Your task to perform on an android device: Clear the shopping cart on bestbuy. Add bose quietcomfort 35 to the cart on bestbuy, then select checkout. Image 0: 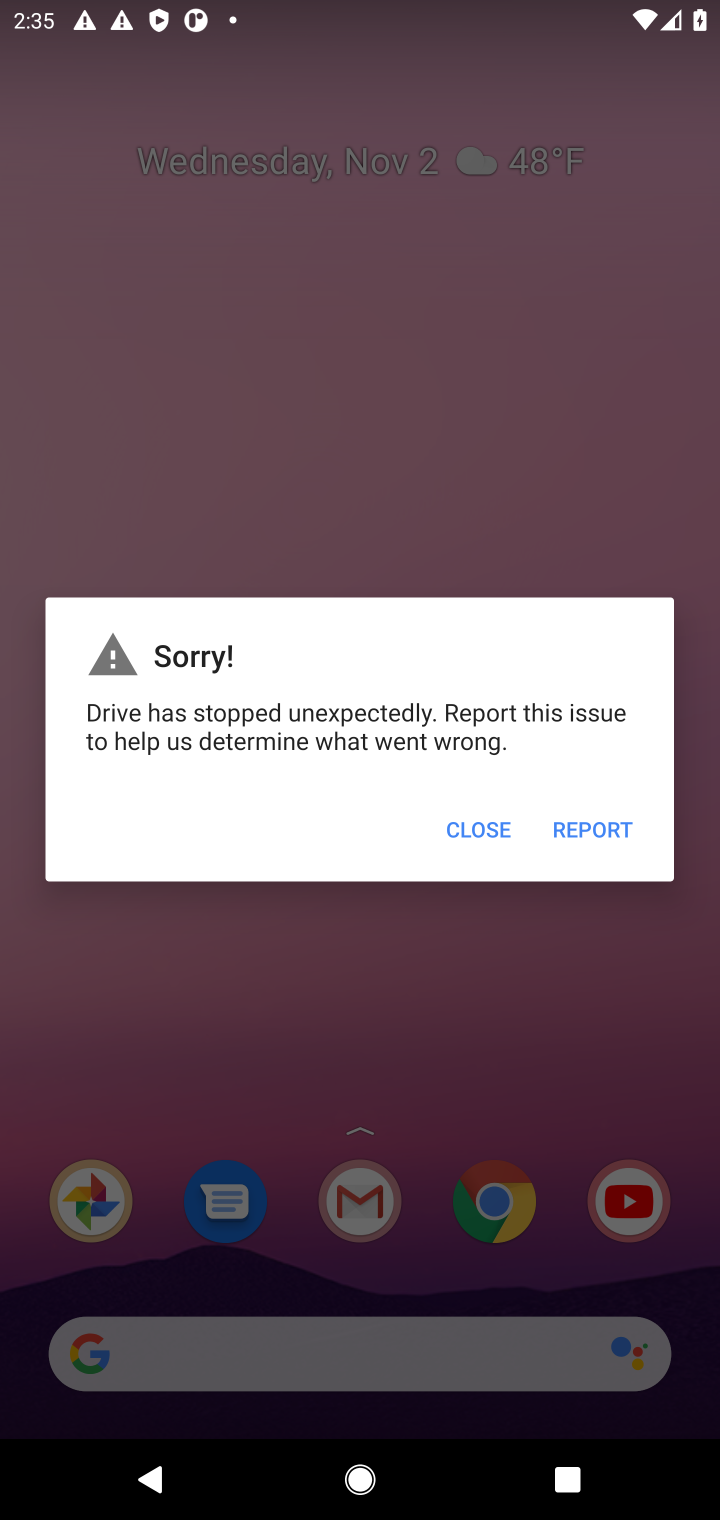
Step 0: press home button
Your task to perform on an android device: Clear the shopping cart on bestbuy. Add bose quietcomfort 35 to the cart on bestbuy, then select checkout. Image 1: 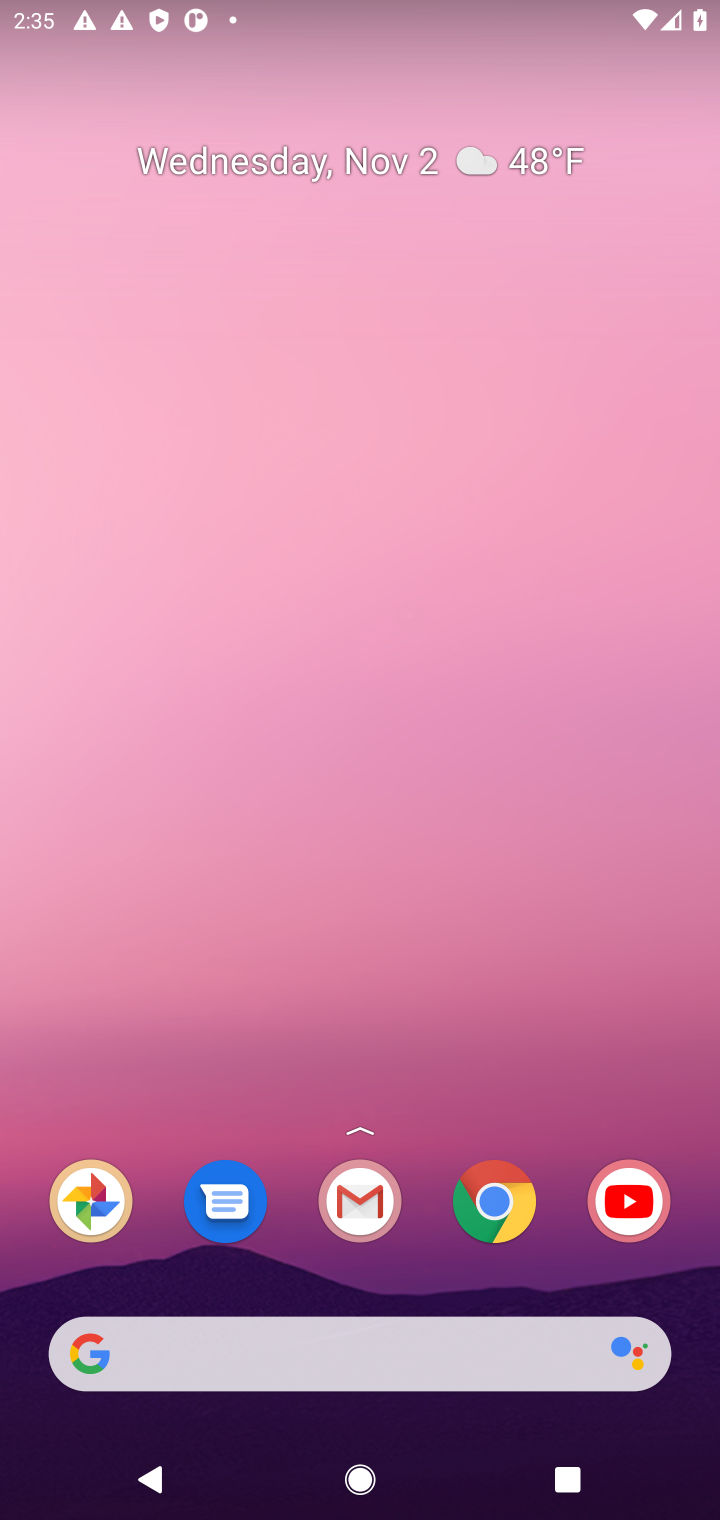
Step 1: click (481, 1207)
Your task to perform on an android device: Clear the shopping cart on bestbuy. Add bose quietcomfort 35 to the cart on bestbuy, then select checkout. Image 2: 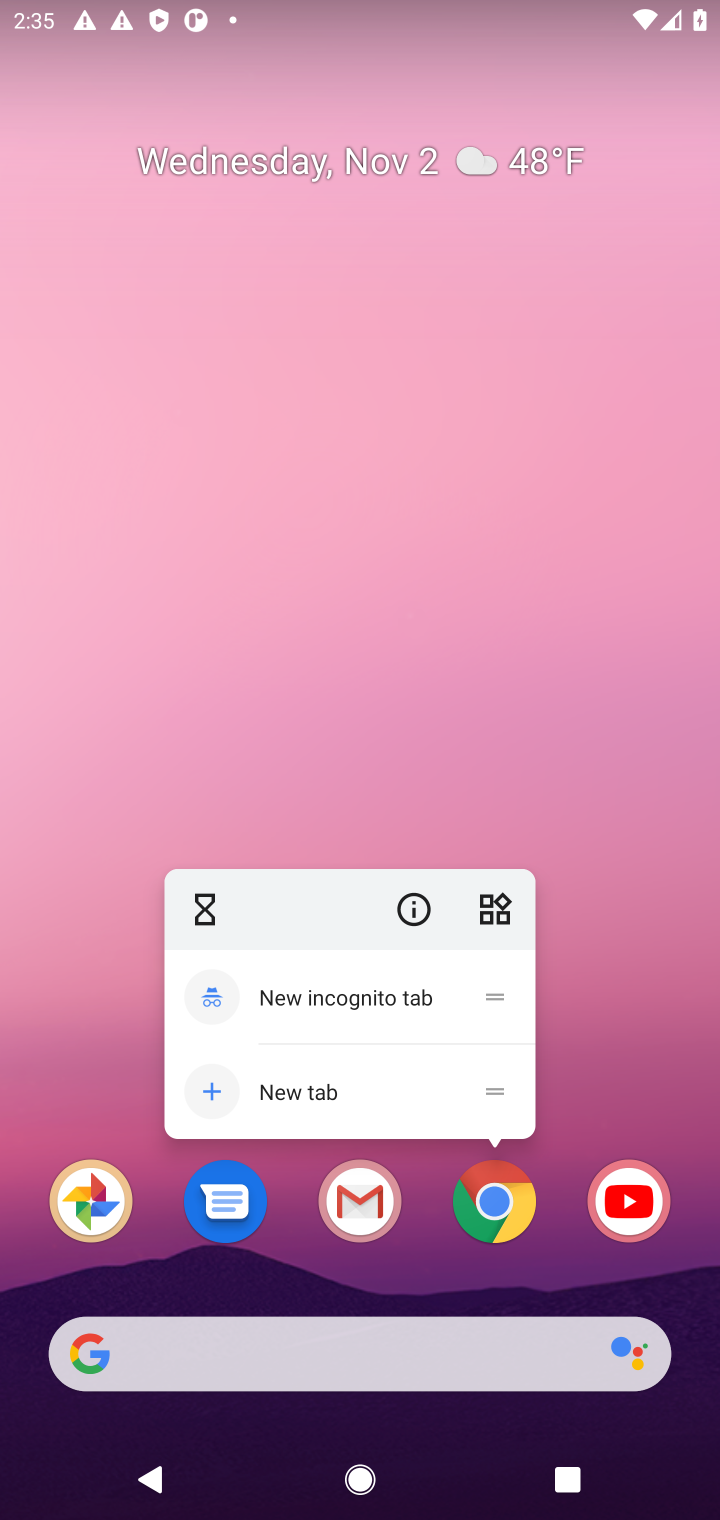
Step 2: click (481, 1207)
Your task to perform on an android device: Clear the shopping cart on bestbuy. Add bose quietcomfort 35 to the cart on bestbuy, then select checkout. Image 3: 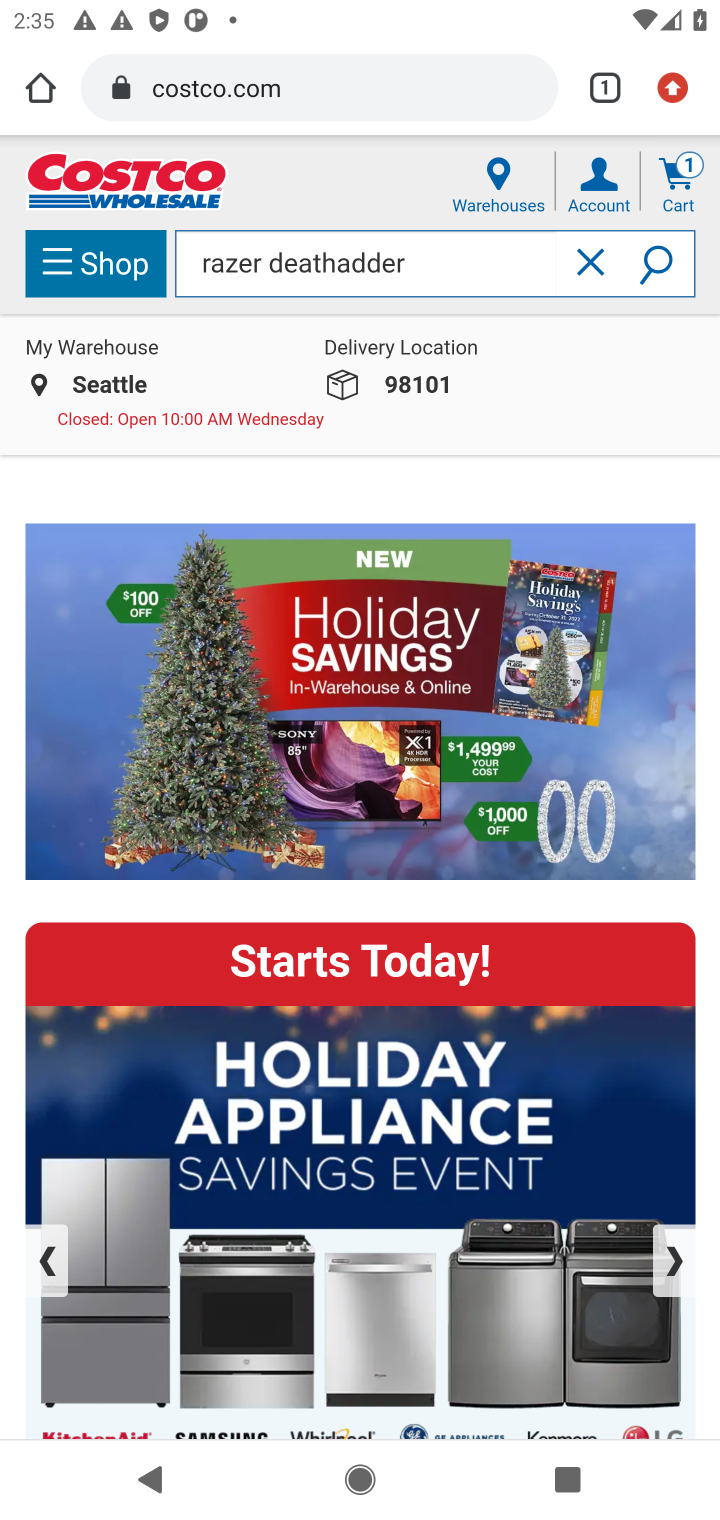
Step 3: click (383, 92)
Your task to perform on an android device: Clear the shopping cart on bestbuy. Add bose quietcomfort 35 to the cart on bestbuy, then select checkout. Image 4: 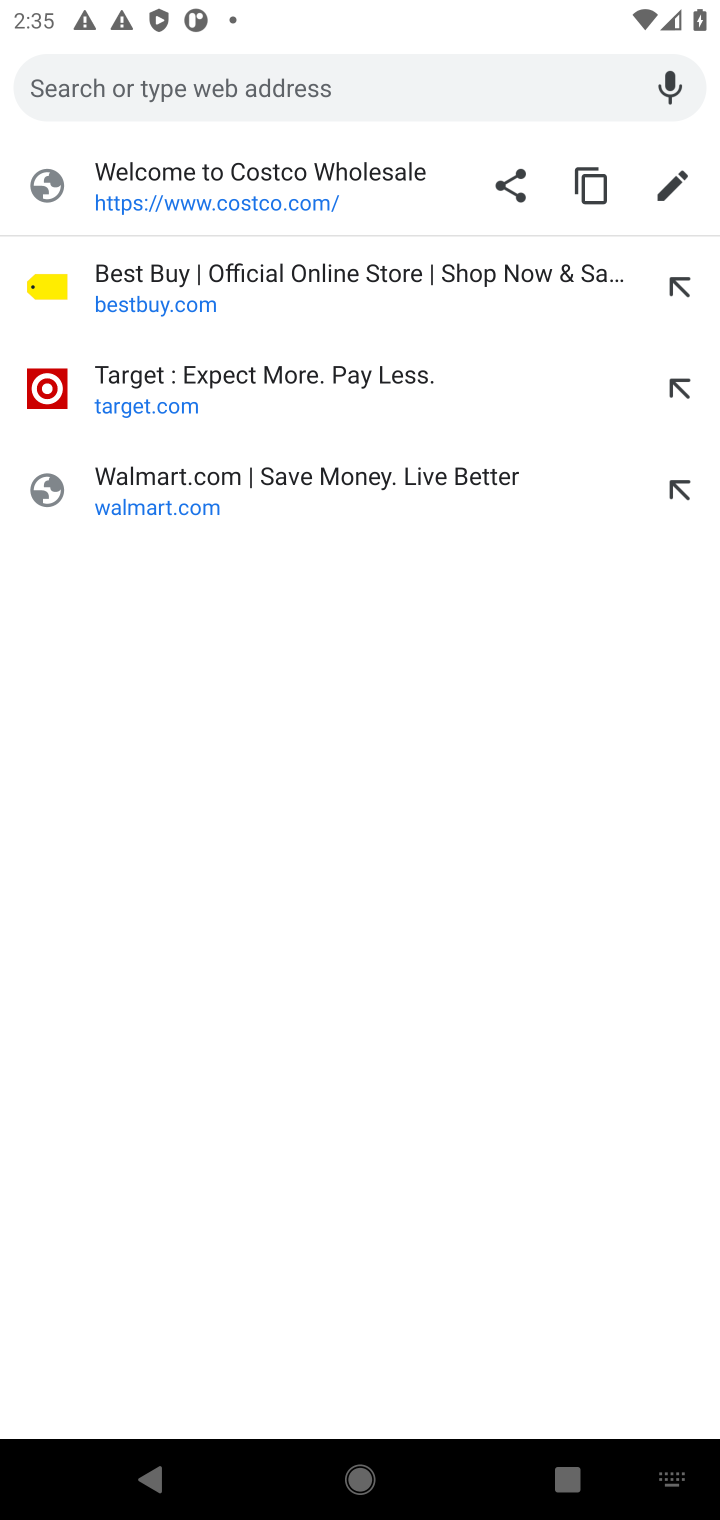
Step 4: click (204, 259)
Your task to perform on an android device: Clear the shopping cart on bestbuy. Add bose quietcomfort 35 to the cart on bestbuy, then select checkout. Image 5: 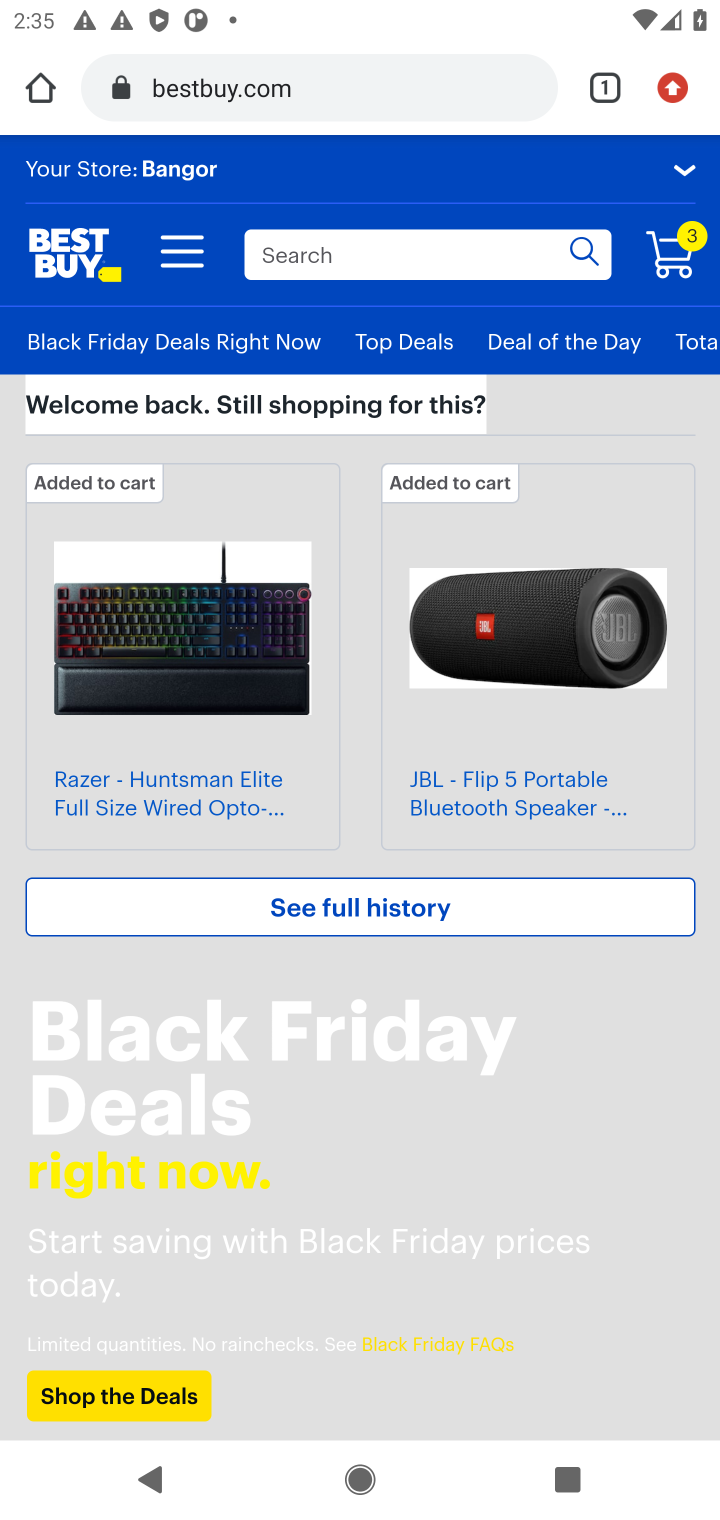
Step 5: click (670, 254)
Your task to perform on an android device: Clear the shopping cart on bestbuy. Add bose quietcomfort 35 to the cart on bestbuy, then select checkout. Image 6: 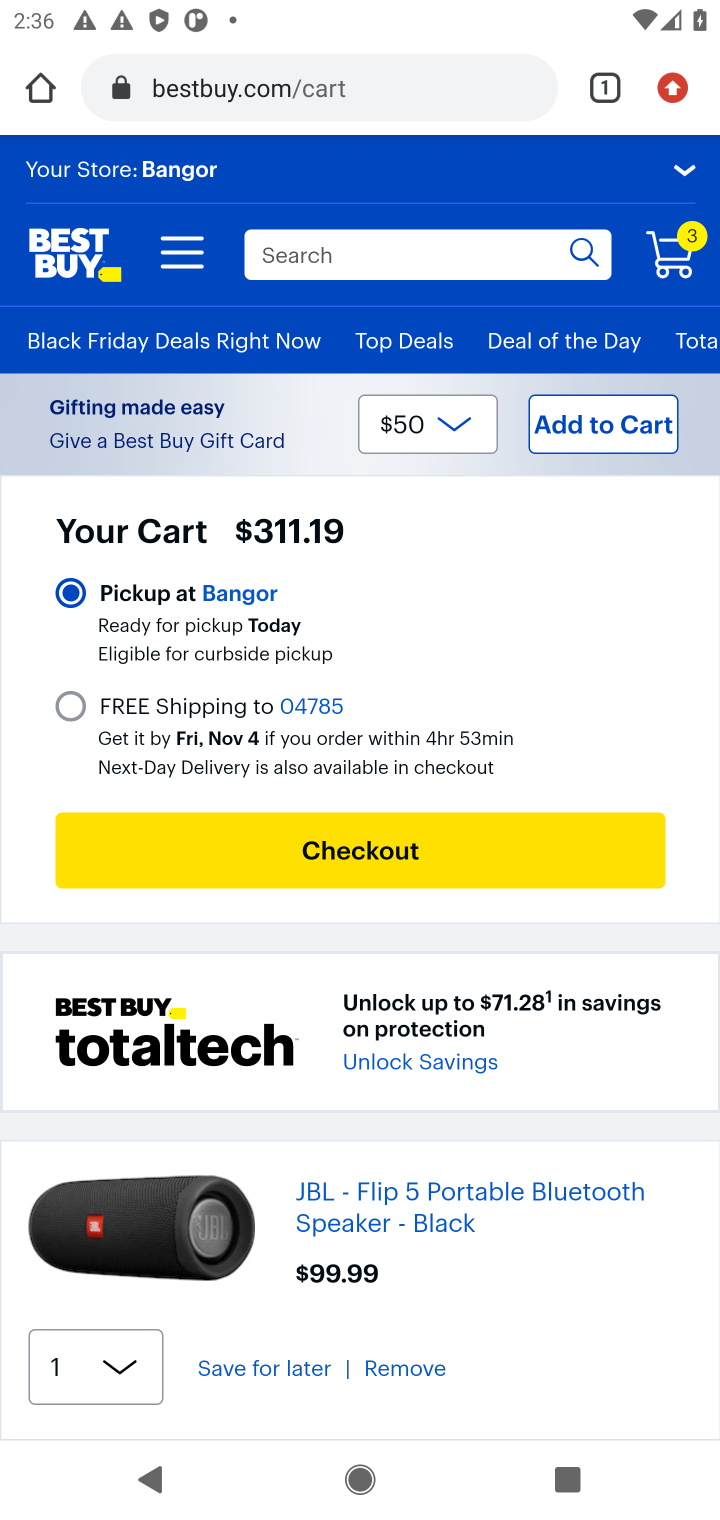
Step 6: drag from (630, 1074) to (578, 634)
Your task to perform on an android device: Clear the shopping cart on bestbuy. Add bose quietcomfort 35 to the cart on bestbuy, then select checkout. Image 7: 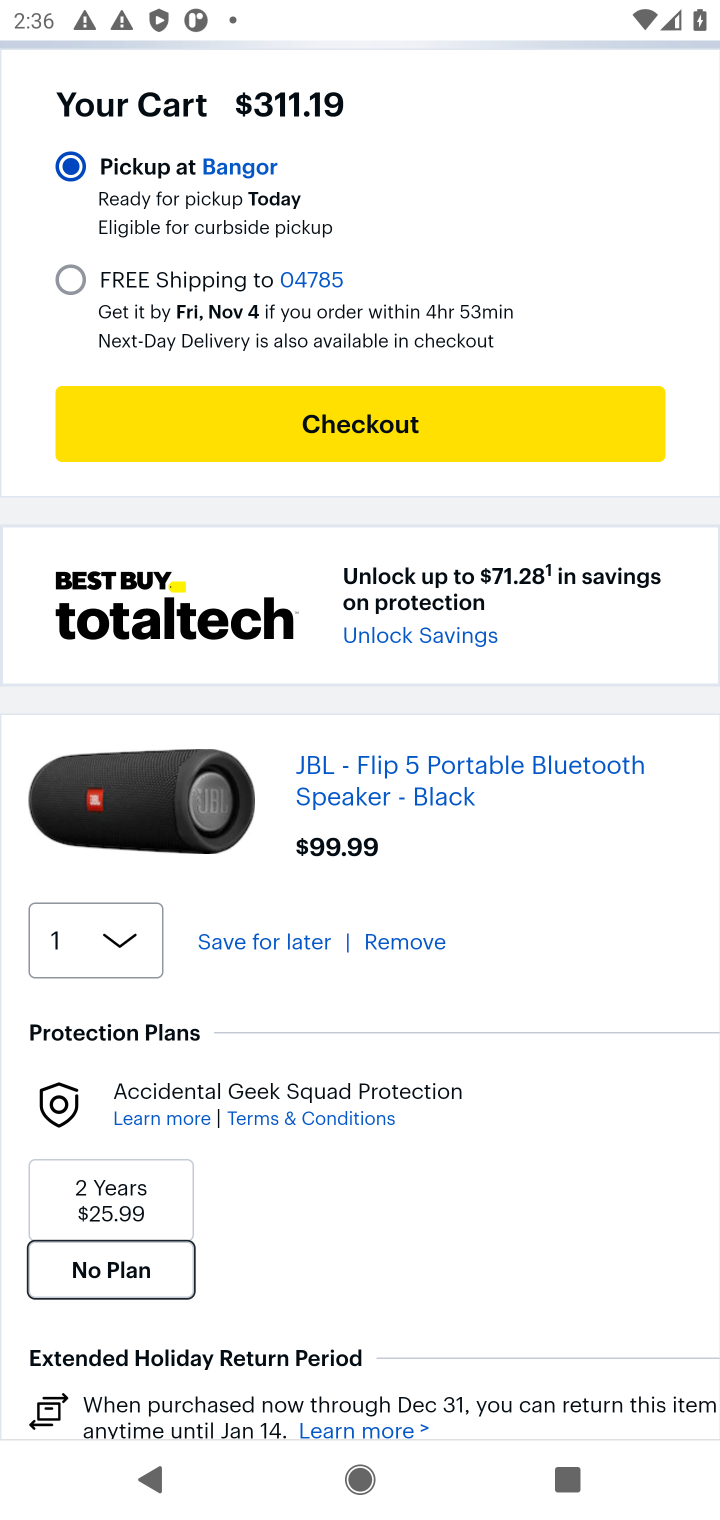
Step 7: click (390, 943)
Your task to perform on an android device: Clear the shopping cart on bestbuy. Add bose quietcomfort 35 to the cart on bestbuy, then select checkout. Image 8: 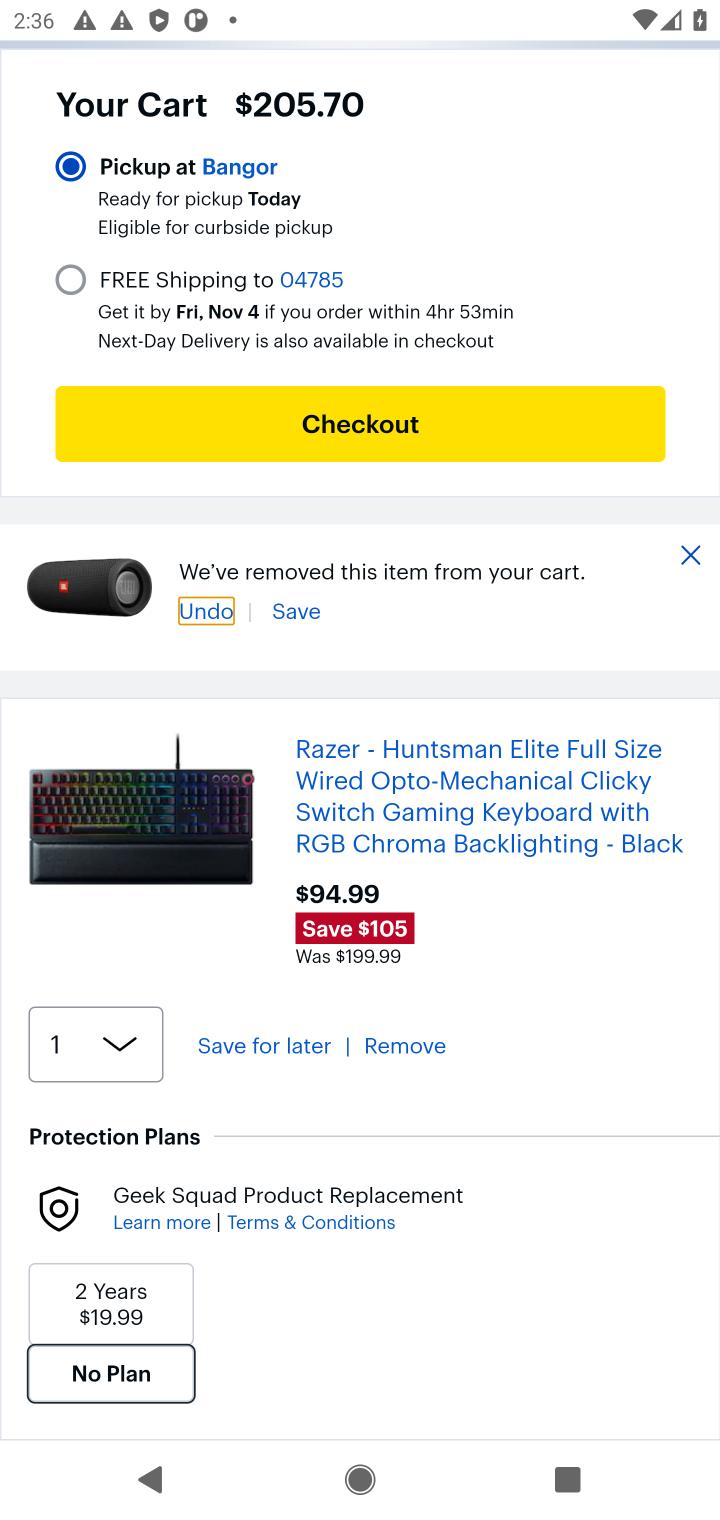
Step 8: drag from (543, 1104) to (549, 745)
Your task to perform on an android device: Clear the shopping cart on bestbuy. Add bose quietcomfort 35 to the cart on bestbuy, then select checkout. Image 9: 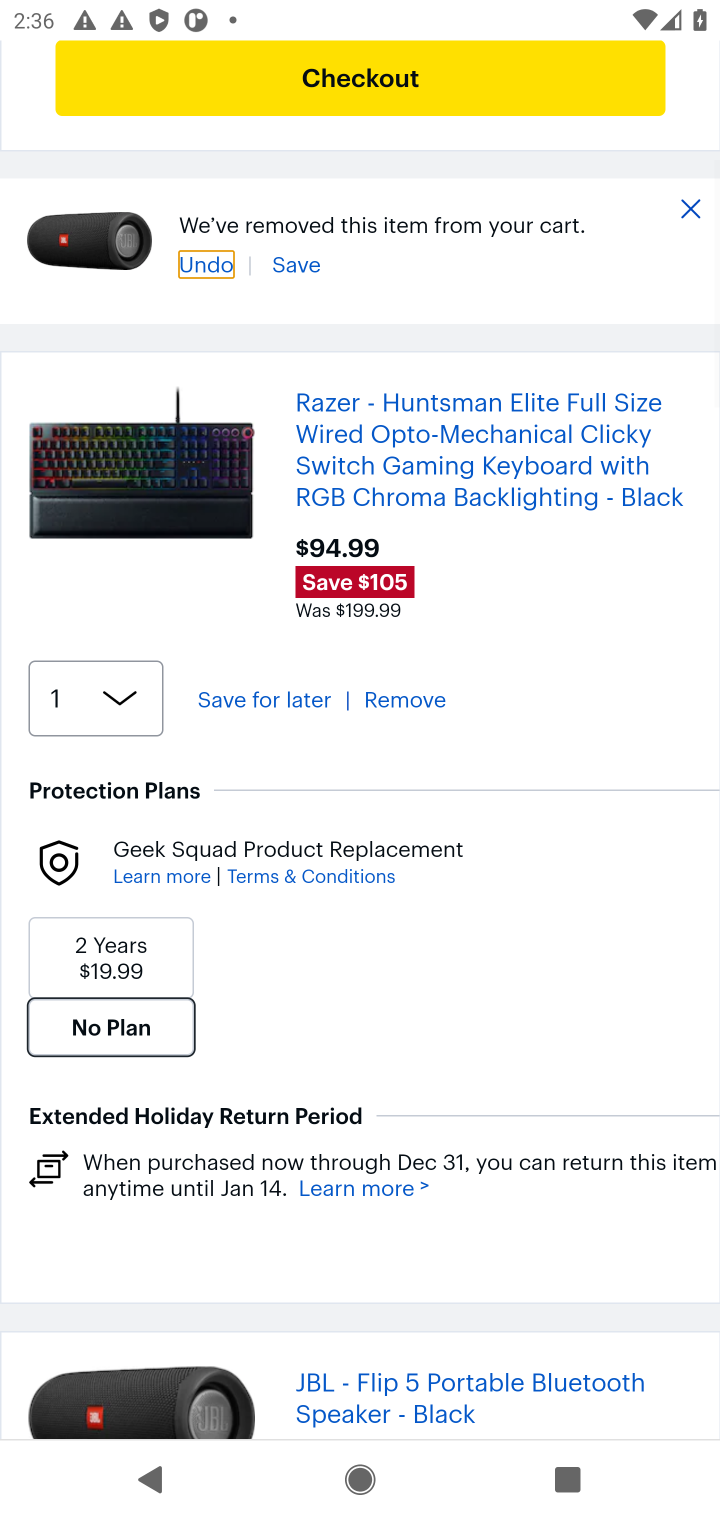
Step 9: click (427, 691)
Your task to perform on an android device: Clear the shopping cart on bestbuy. Add bose quietcomfort 35 to the cart on bestbuy, then select checkout. Image 10: 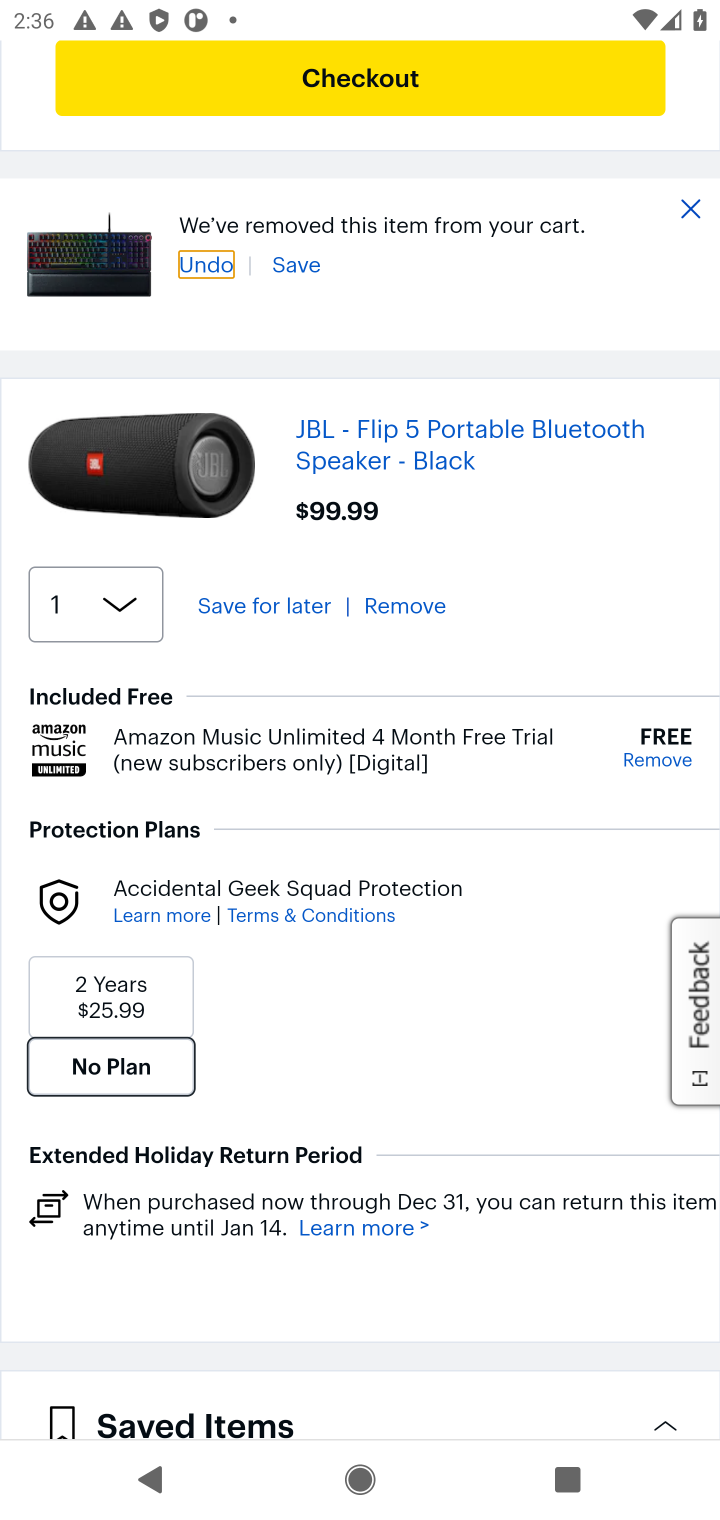
Step 10: click (699, 206)
Your task to perform on an android device: Clear the shopping cart on bestbuy. Add bose quietcomfort 35 to the cart on bestbuy, then select checkout. Image 11: 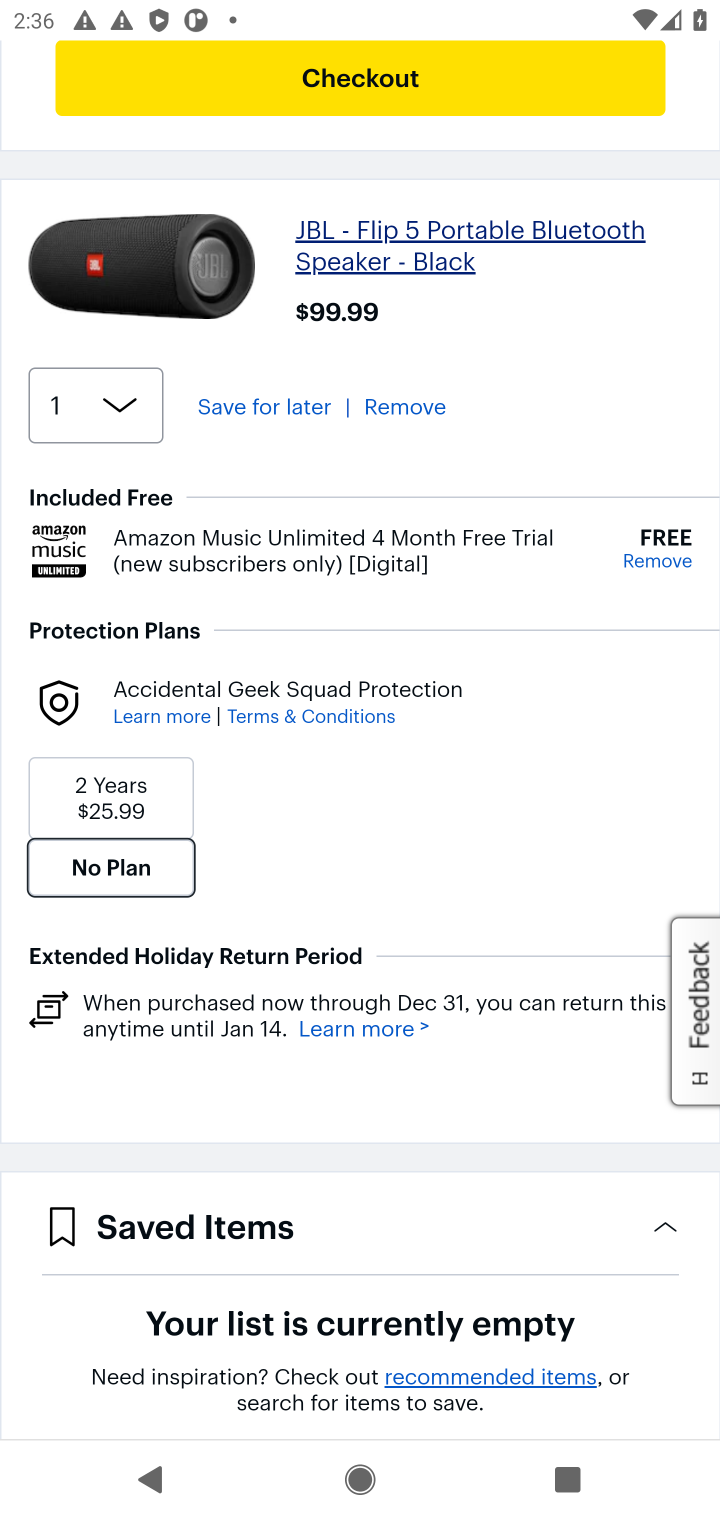
Step 11: click (402, 401)
Your task to perform on an android device: Clear the shopping cart on bestbuy. Add bose quietcomfort 35 to the cart on bestbuy, then select checkout. Image 12: 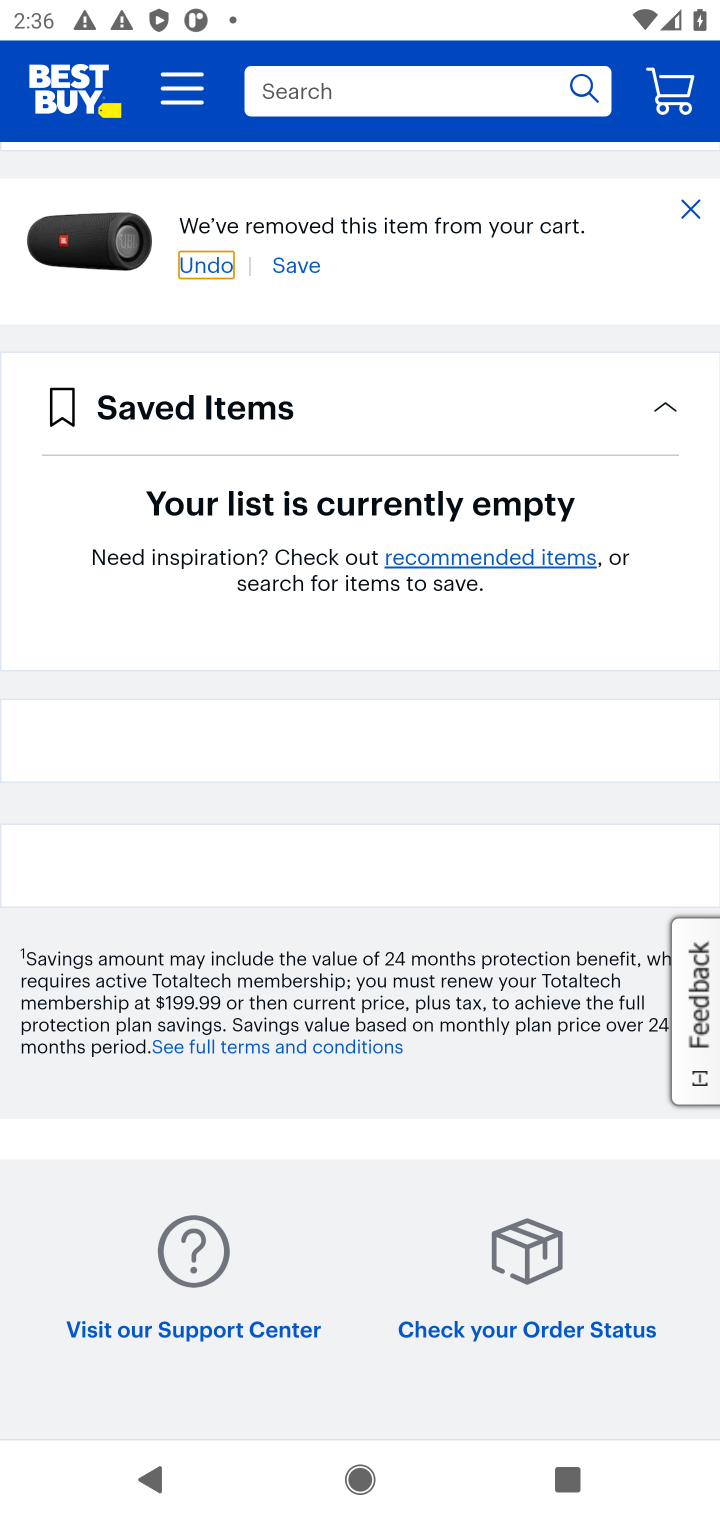
Step 12: click (682, 205)
Your task to perform on an android device: Clear the shopping cart on bestbuy. Add bose quietcomfort 35 to the cart on bestbuy, then select checkout. Image 13: 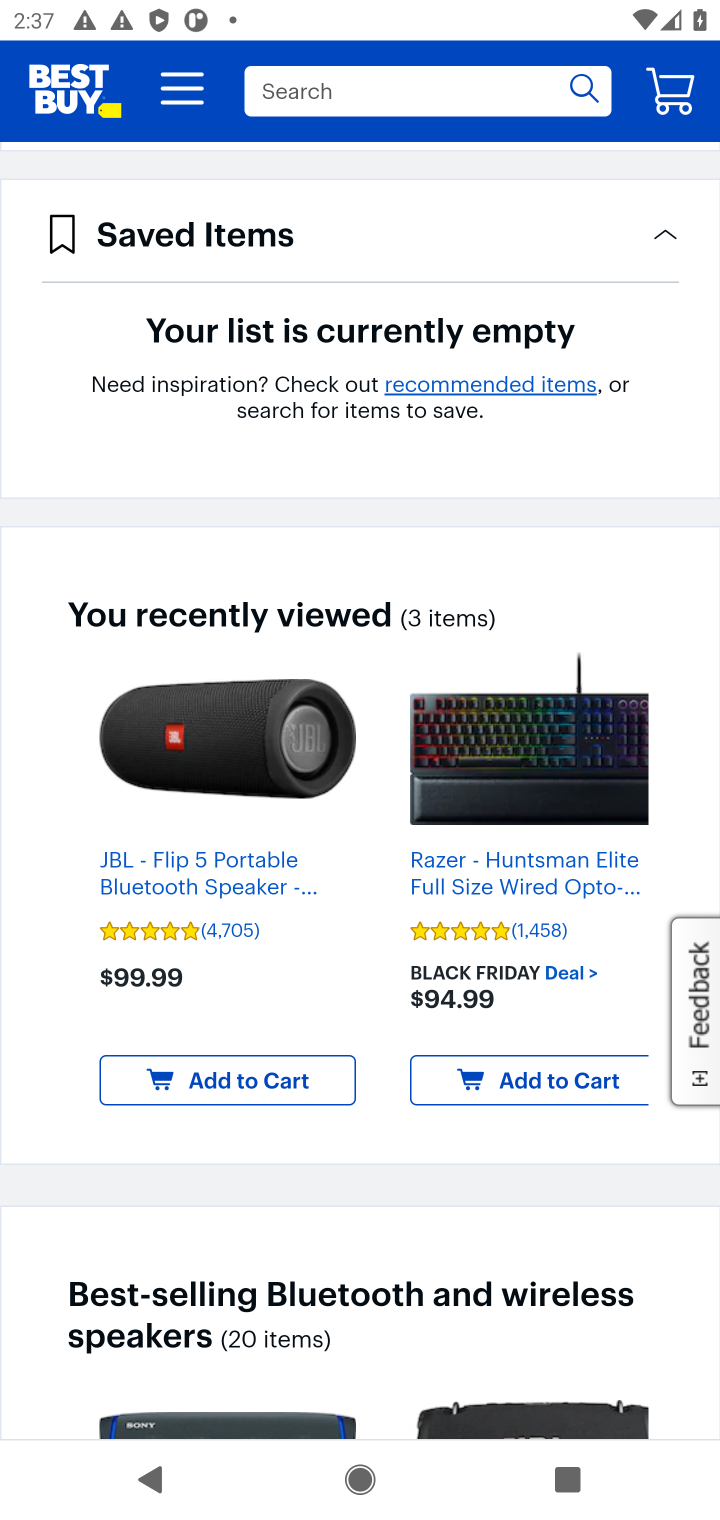
Step 13: click (366, 74)
Your task to perform on an android device: Clear the shopping cart on bestbuy. Add bose quietcomfort 35 to the cart on bestbuy, then select checkout. Image 14: 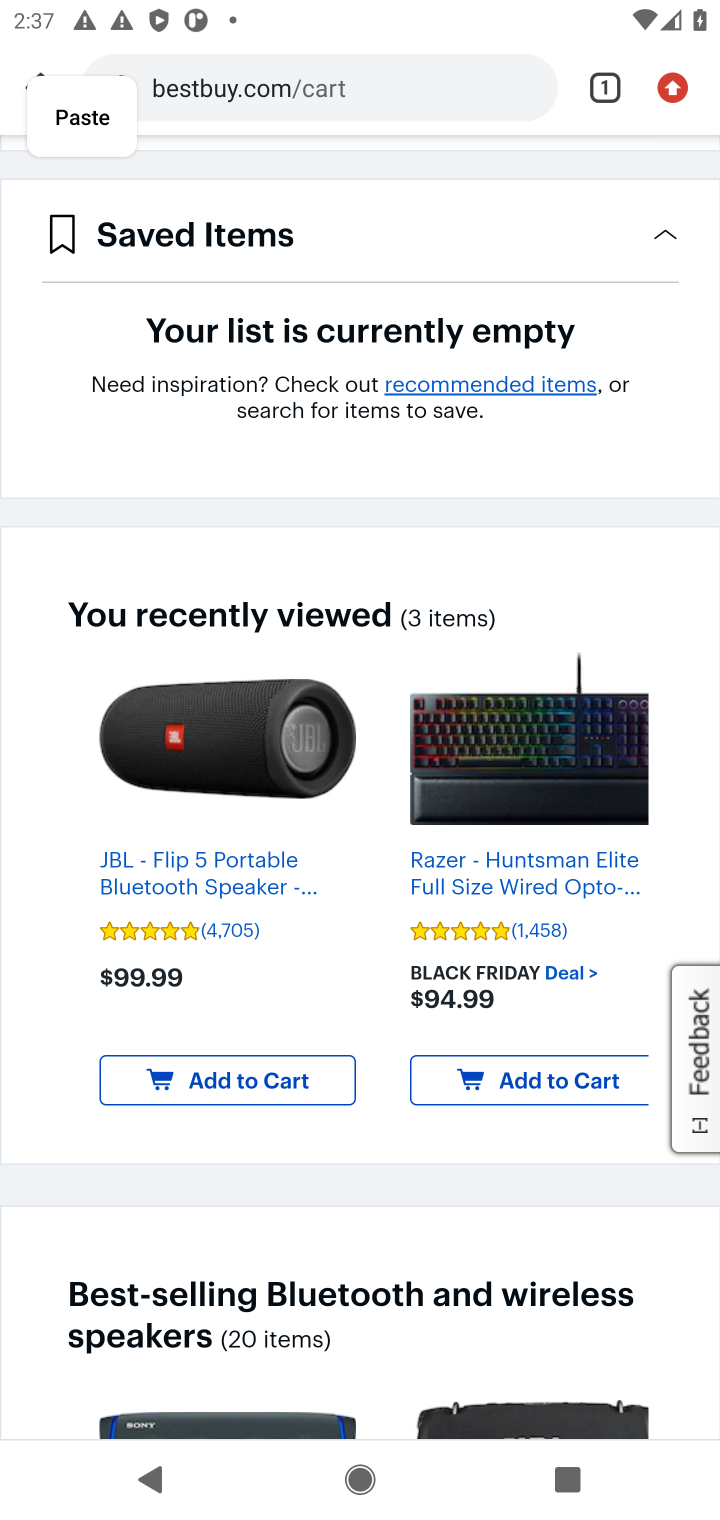
Step 14: type "bose quietcomfort 35"
Your task to perform on an android device: Clear the shopping cart on bestbuy. Add bose quietcomfort 35 to the cart on bestbuy, then select checkout. Image 15: 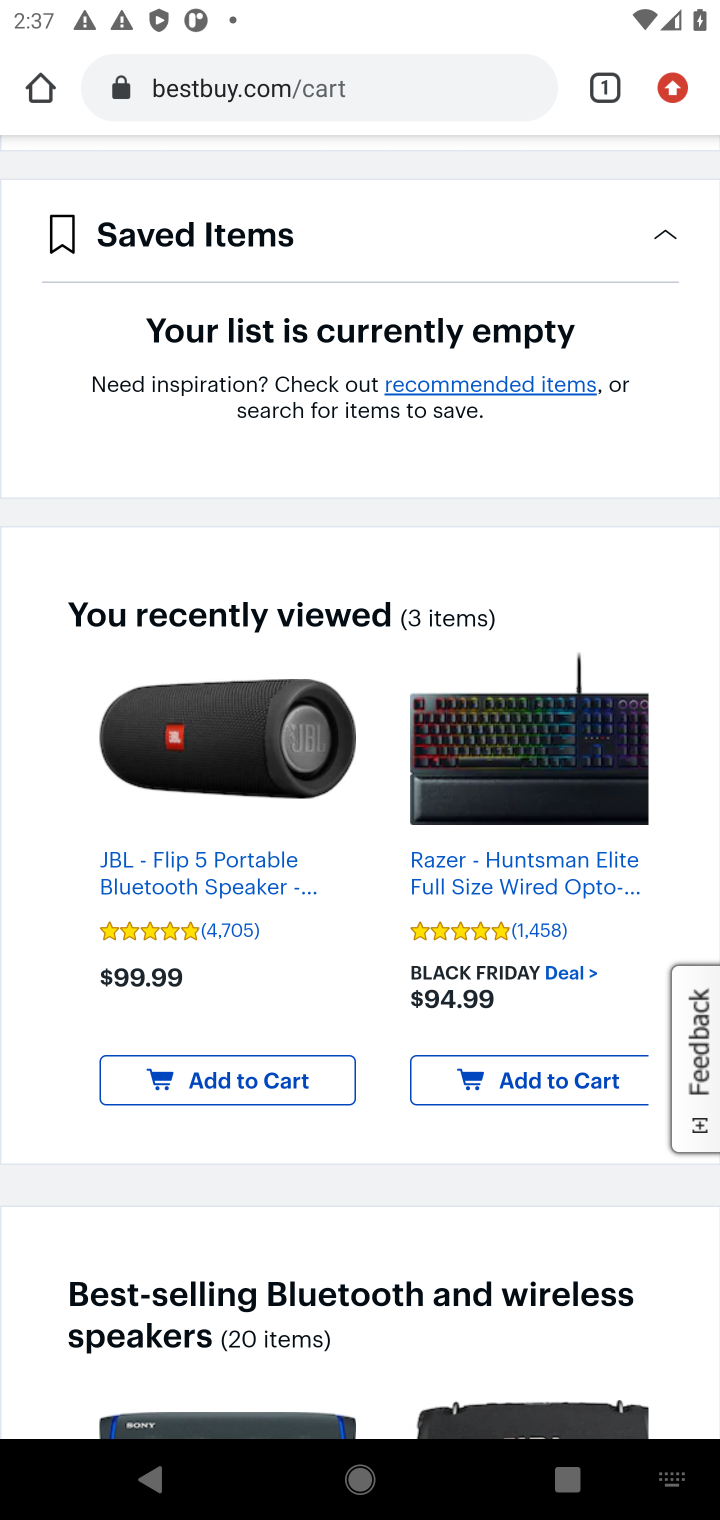
Step 15: press enter
Your task to perform on an android device: Clear the shopping cart on bestbuy. Add bose quietcomfort 35 to the cart on bestbuy, then select checkout. Image 16: 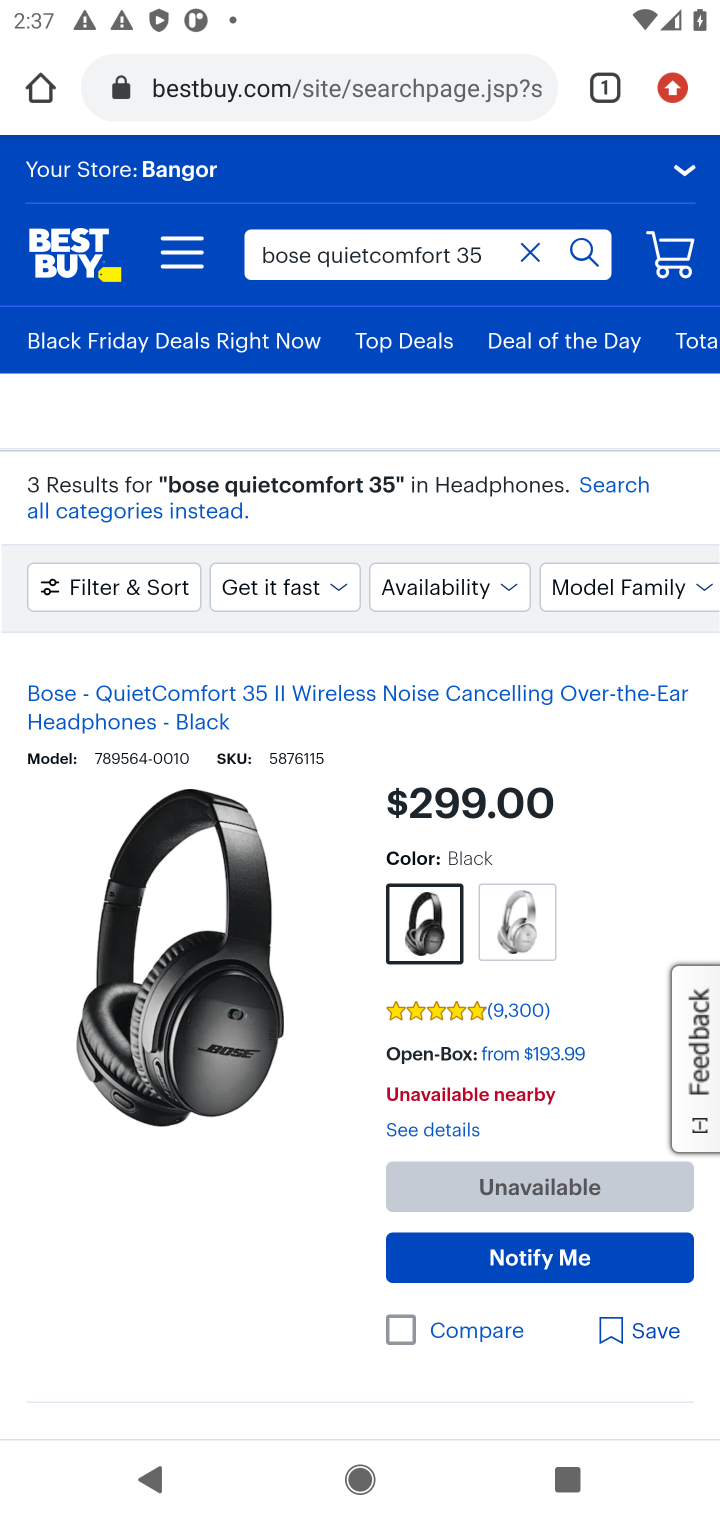
Step 16: task complete